Your task to perform on an android device: see tabs open on other devices in the chrome app Image 0: 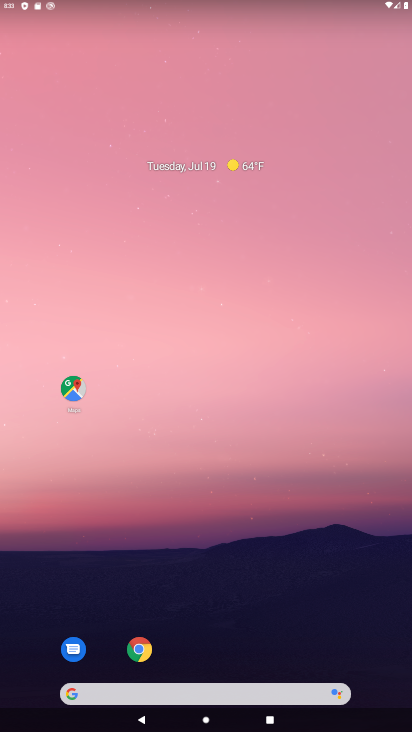
Step 0: click (136, 653)
Your task to perform on an android device: see tabs open on other devices in the chrome app Image 1: 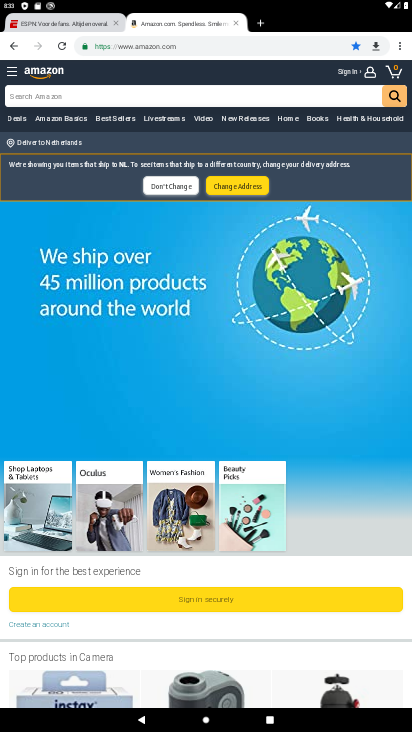
Step 1: click (394, 41)
Your task to perform on an android device: see tabs open on other devices in the chrome app Image 2: 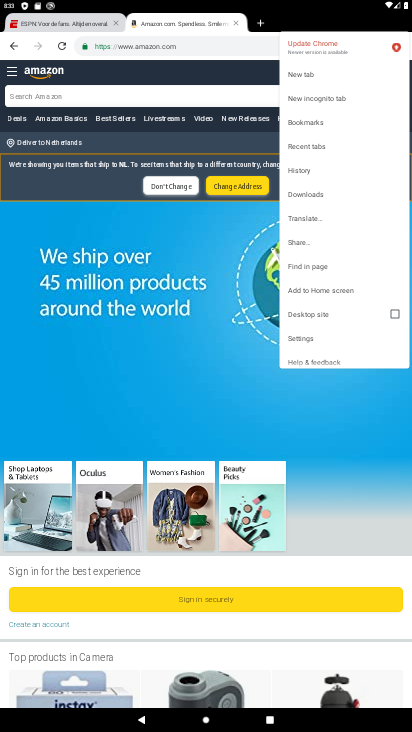
Step 2: click (335, 149)
Your task to perform on an android device: see tabs open on other devices in the chrome app Image 3: 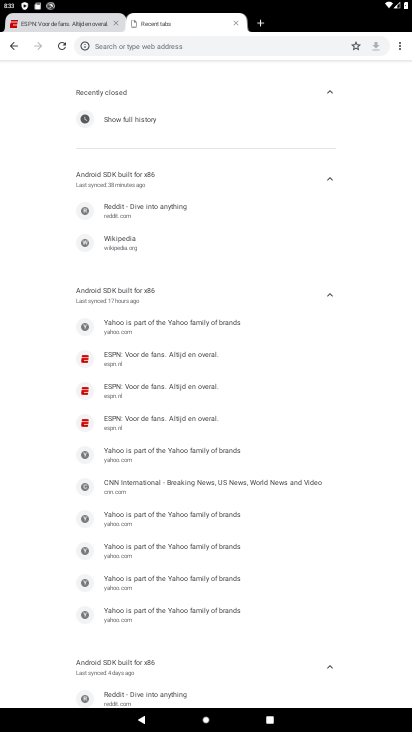
Step 3: task complete